Your task to perform on an android device: Open calendar and show me the second week of next month Image 0: 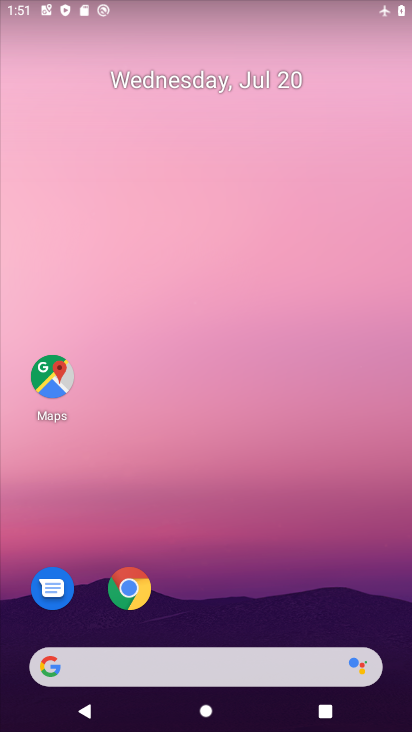
Step 0: drag from (278, 579) to (323, 0)
Your task to perform on an android device: Open calendar and show me the second week of next month Image 1: 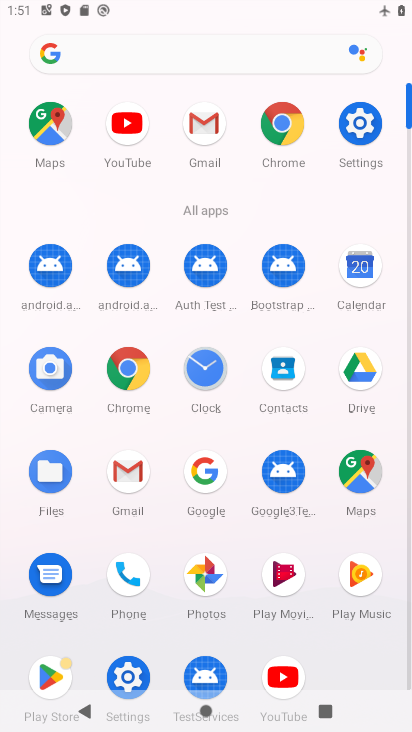
Step 1: click (361, 268)
Your task to perform on an android device: Open calendar and show me the second week of next month Image 2: 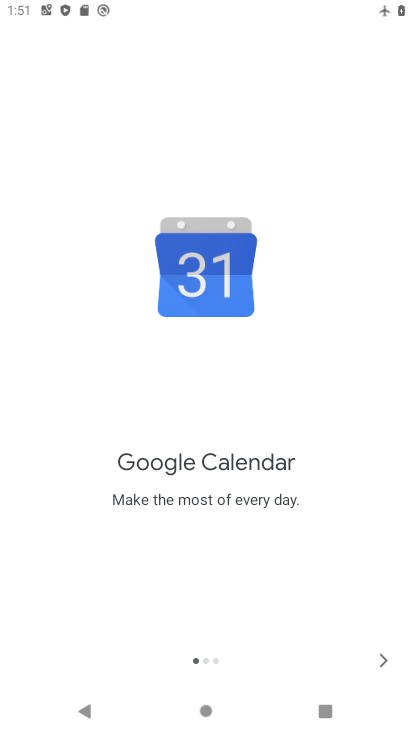
Step 2: click (380, 657)
Your task to perform on an android device: Open calendar and show me the second week of next month Image 3: 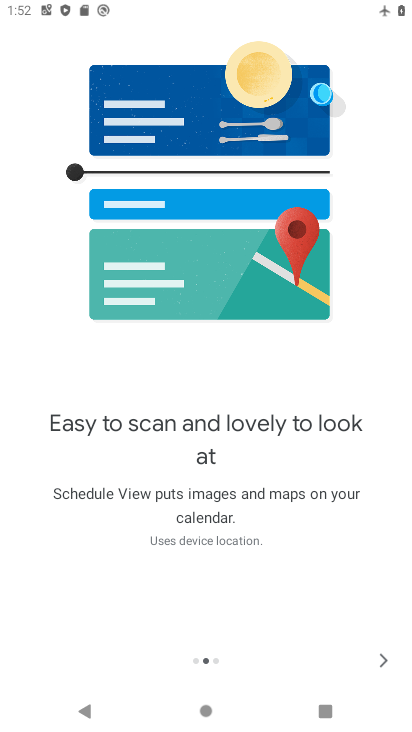
Step 3: click (372, 653)
Your task to perform on an android device: Open calendar and show me the second week of next month Image 4: 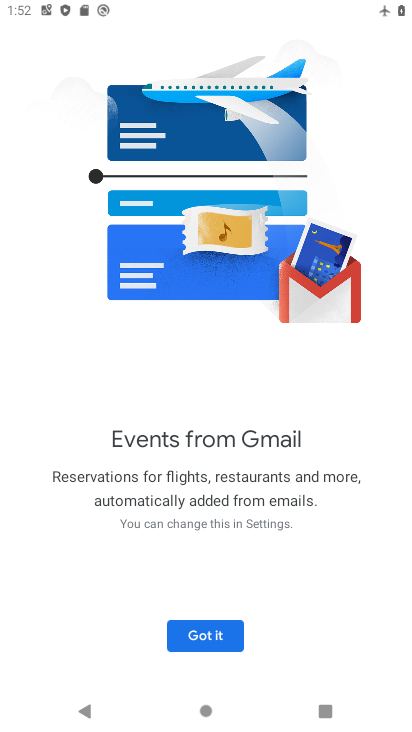
Step 4: click (202, 627)
Your task to perform on an android device: Open calendar and show me the second week of next month Image 5: 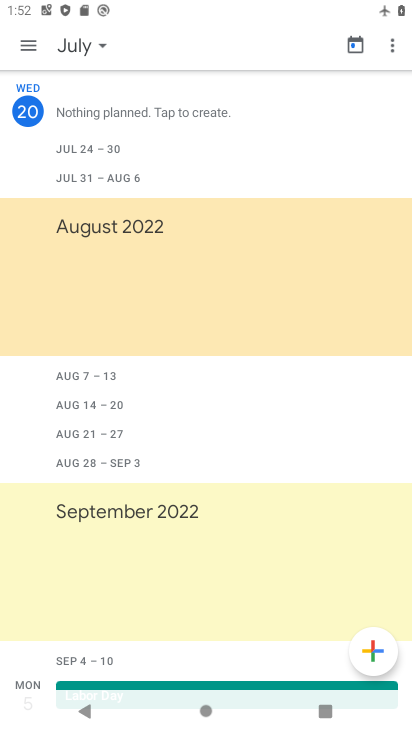
Step 5: click (77, 44)
Your task to perform on an android device: Open calendar and show me the second week of next month Image 6: 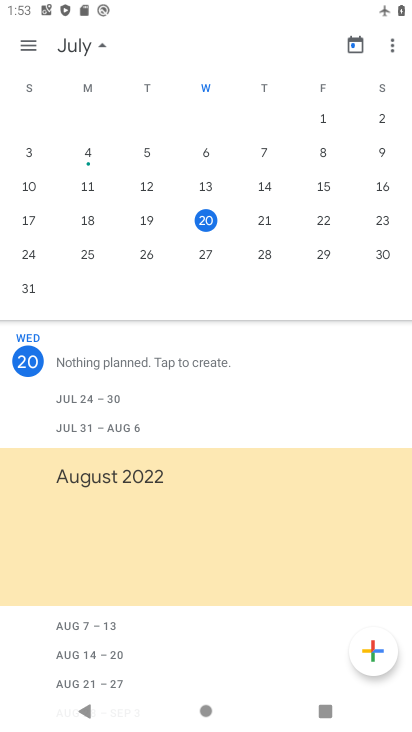
Step 6: drag from (367, 247) to (7, 284)
Your task to perform on an android device: Open calendar and show me the second week of next month Image 7: 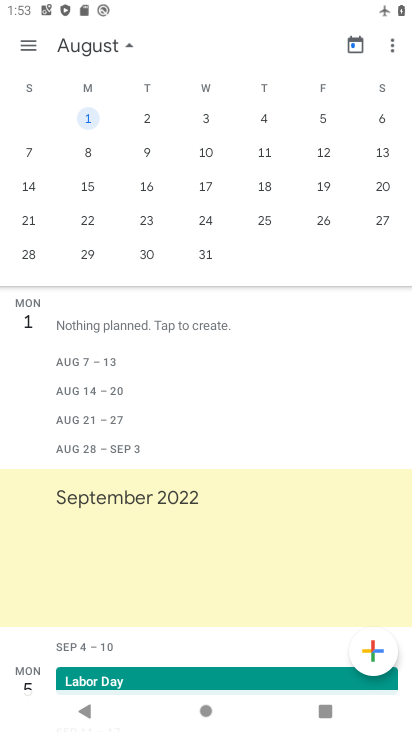
Step 7: click (29, 192)
Your task to perform on an android device: Open calendar and show me the second week of next month Image 8: 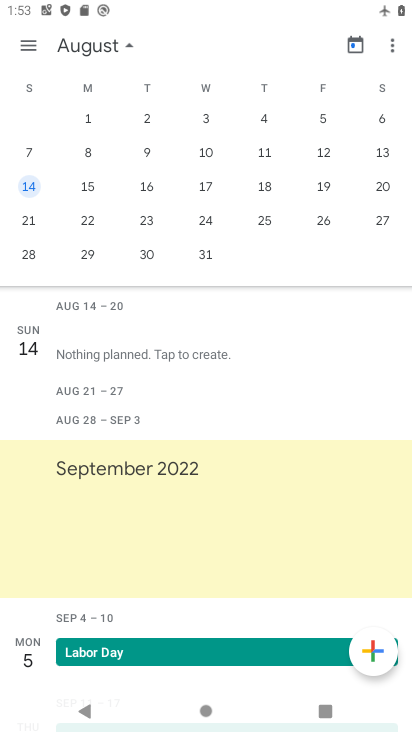
Step 8: task complete